Your task to perform on an android device: Go to location settings Image 0: 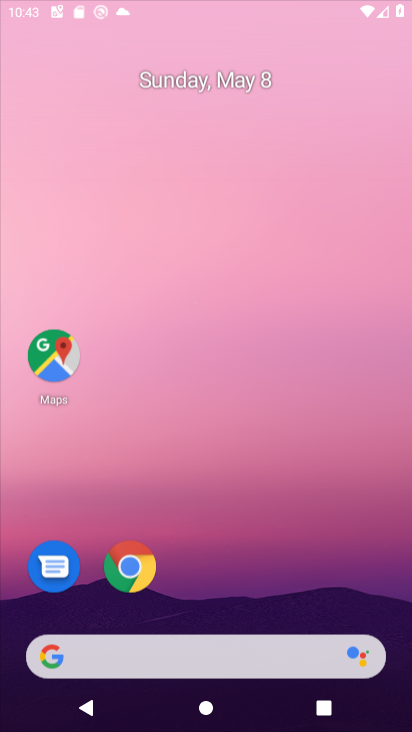
Step 0: drag from (298, 581) to (276, 211)
Your task to perform on an android device: Go to location settings Image 1: 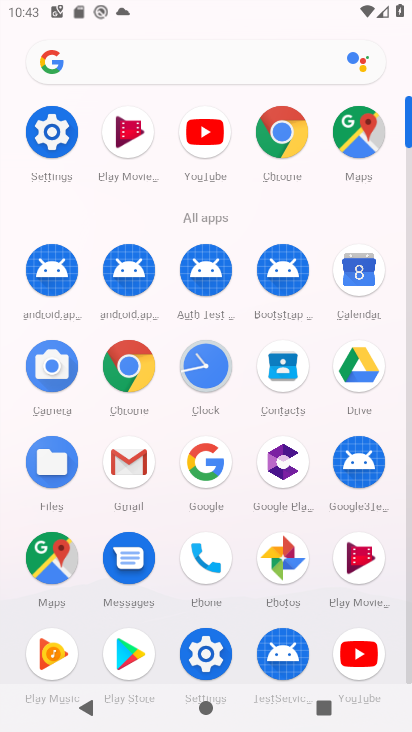
Step 1: click (54, 164)
Your task to perform on an android device: Go to location settings Image 2: 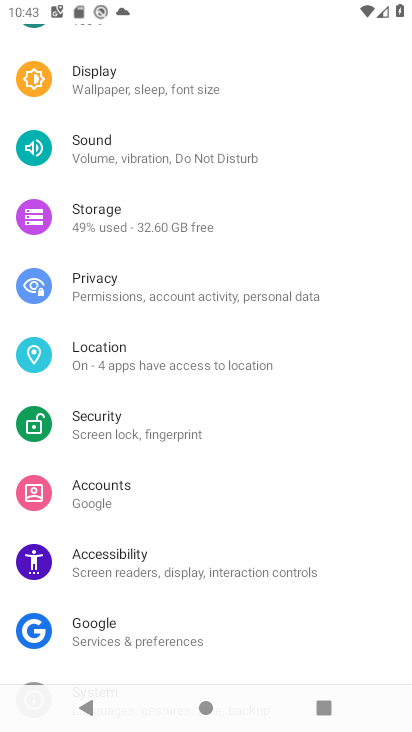
Step 2: drag from (178, 201) to (172, 461)
Your task to perform on an android device: Go to location settings Image 3: 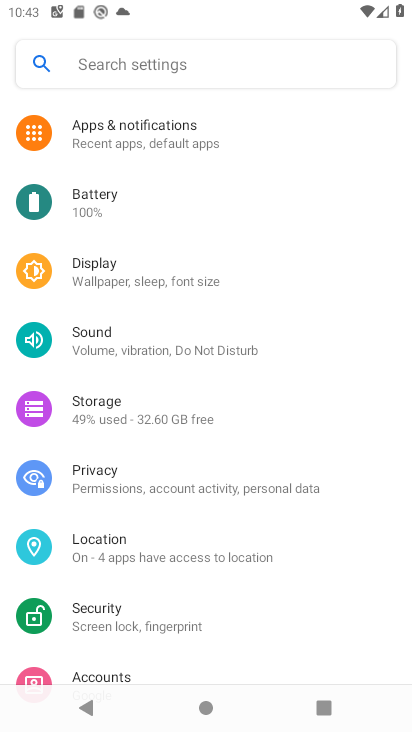
Step 3: click (191, 158)
Your task to perform on an android device: Go to location settings Image 4: 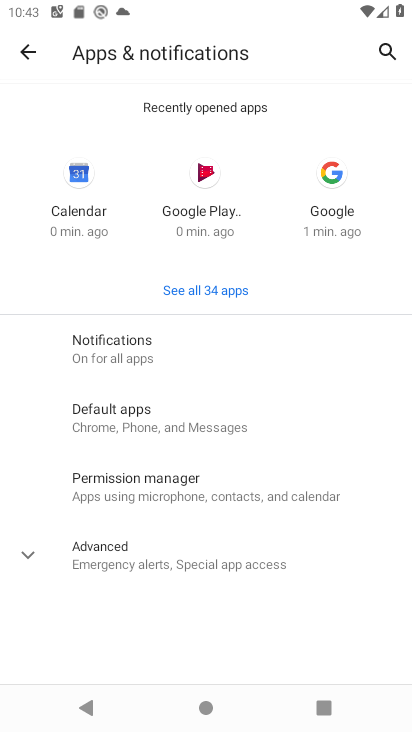
Step 4: click (125, 351)
Your task to perform on an android device: Go to location settings Image 5: 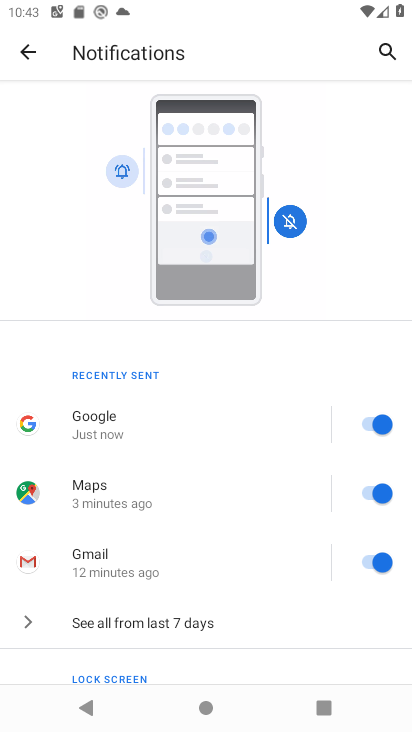
Step 5: drag from (231, 608) to (227, 257)
Your task to perform on an android device: Go to location settings Image 6: 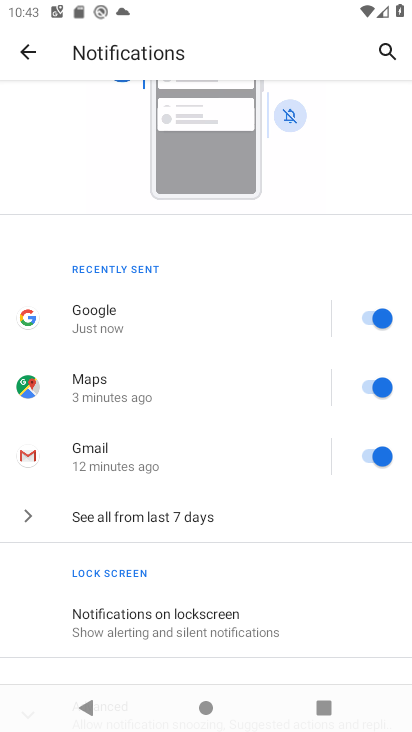
Step 6: click (169, 626)
Your task to perform on an android device: Go to location settings Image 7: 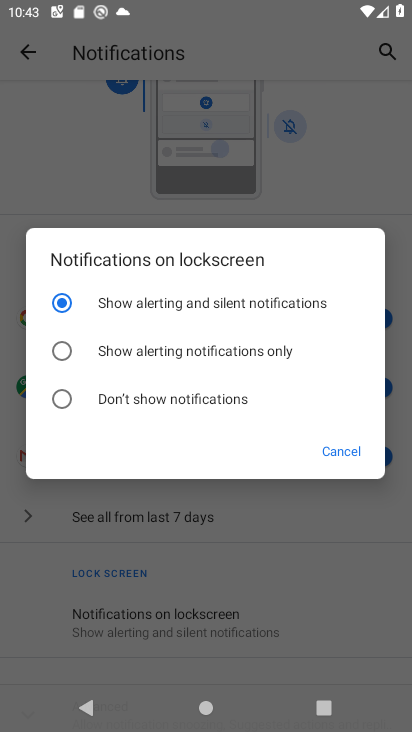
Step 7: click (96, 404)
Your task to perform on an android device: Go to location settings Image 8: 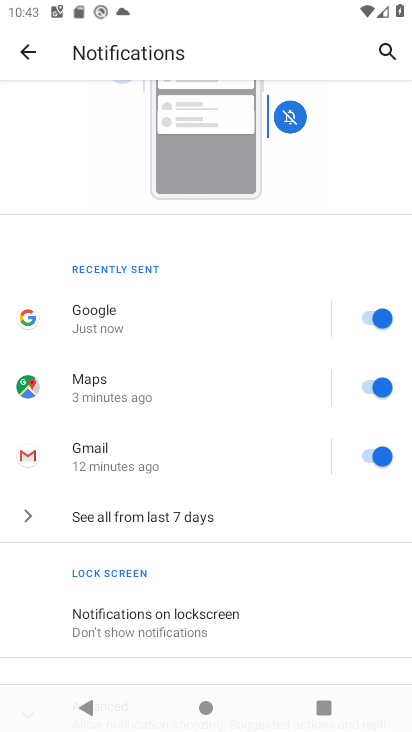
Step 8: task complete